Your task to perform on an android device: Toggle the flashlight Image 0: 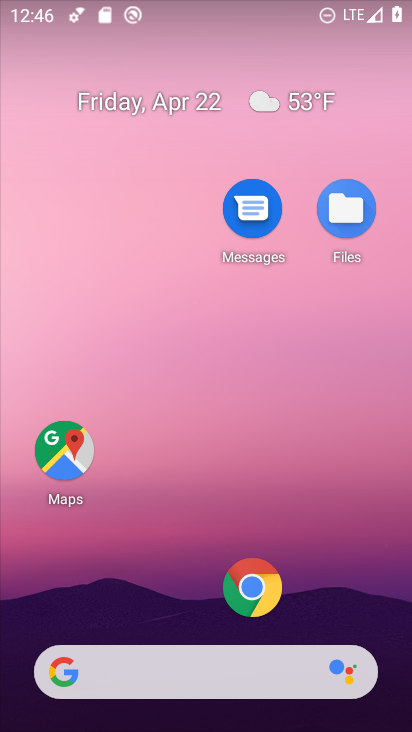
Step 0: drag from (125, 616) to (192, 240)
Your task to perform on an android device: Toggle the flashlight Image 1: 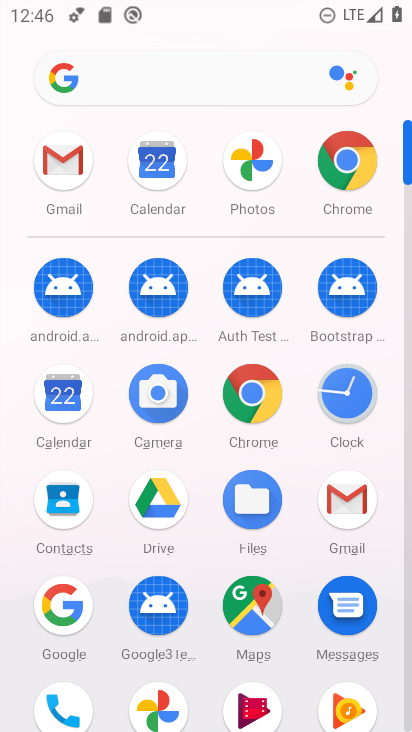
Step 1: drag from (279, 652) to (358, 241)
Your task to perform on an android device: Toggle the flashlight Image 2: 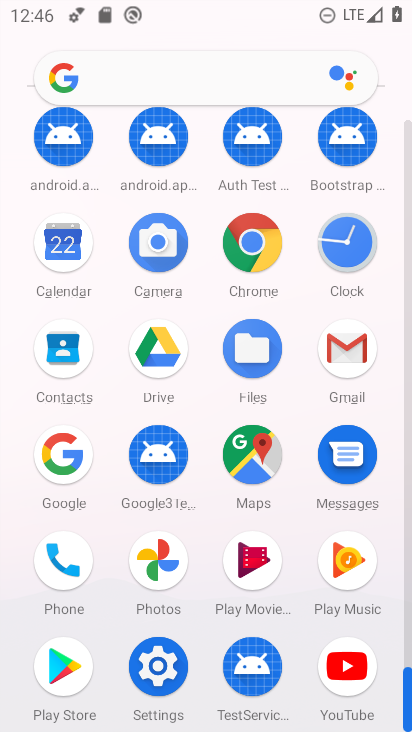
Step 2: click (158, 639)
Your task to perform on an android device: Toggle the flashlight Image 3: 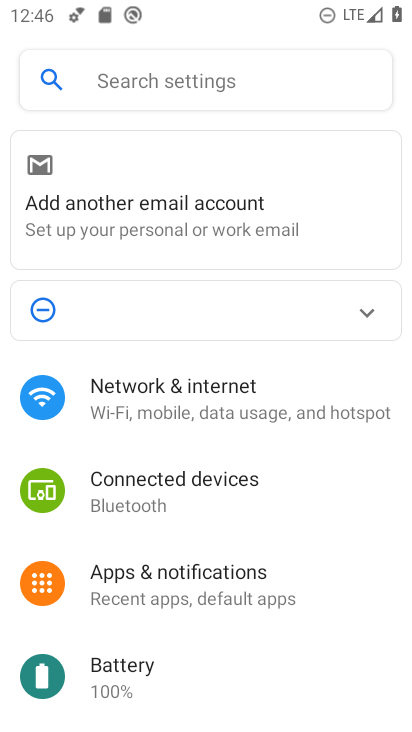
Step 3: drag from (148, 634) to (196, 394)
Your task to perform on an android device: Toggle the flashlight Image 4: 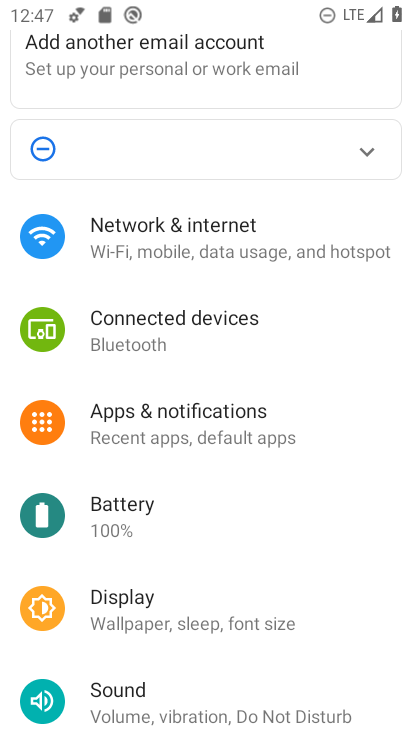
Step 4: drag from (146, 651) to (188, 417)
Your task to perform on an android device: Toggle the flashlight Image 5: 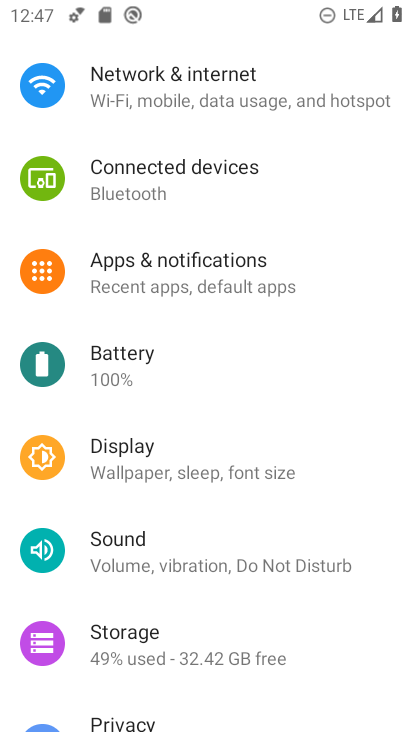
Step 5: click (186, 470)
Your task to perform on an android device: Toggle the flashlight Image 6: 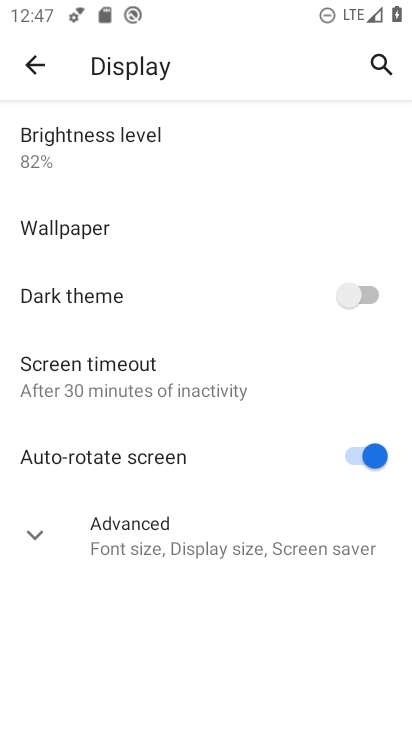
Step 6: task complete